Your task to perform on an android device: turn off wifi Image 0: 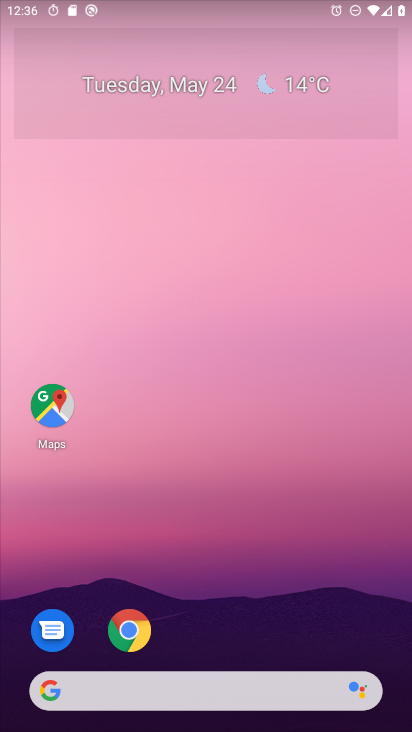
Step 0: drag from (252, 602) to (256, 111)
Your task to perform on an android device: turn off wifi Image 1: 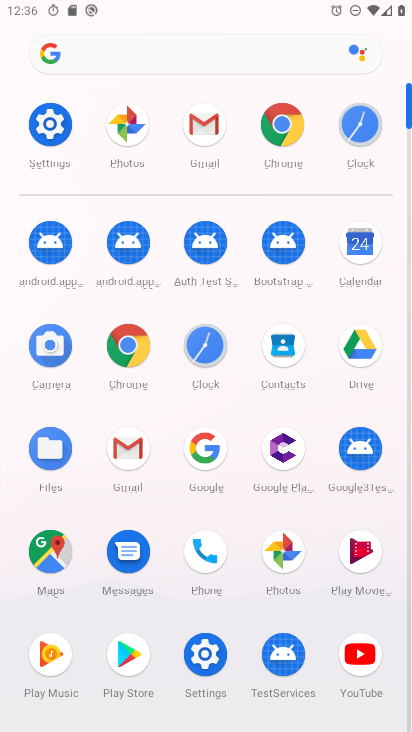
Step 1: click (57, 123)
Your task to perform on an android device: turn off wifi Image 2: 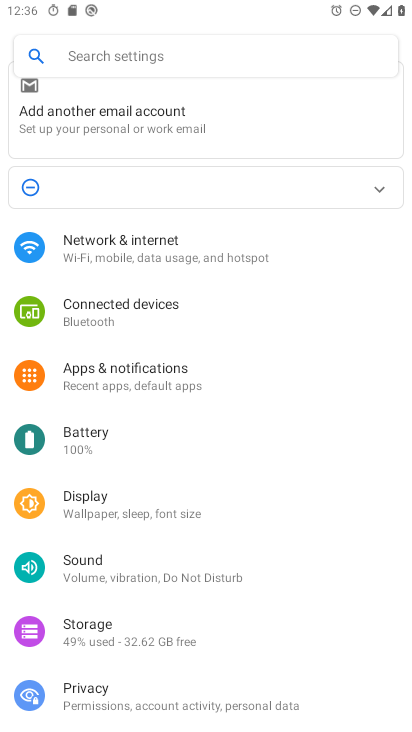
Step 2: click (119, 234)
Your task to perform on an android device: turn off wifi Image 3: 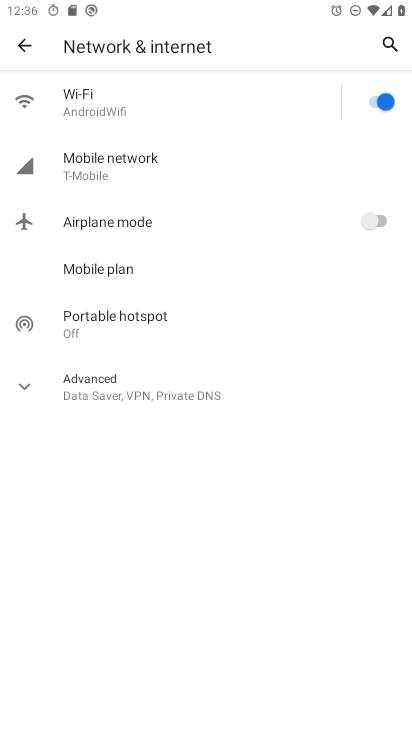
Step 3: click (378, 98)
Your task to perform on an android device: turn off wifi Image 4: 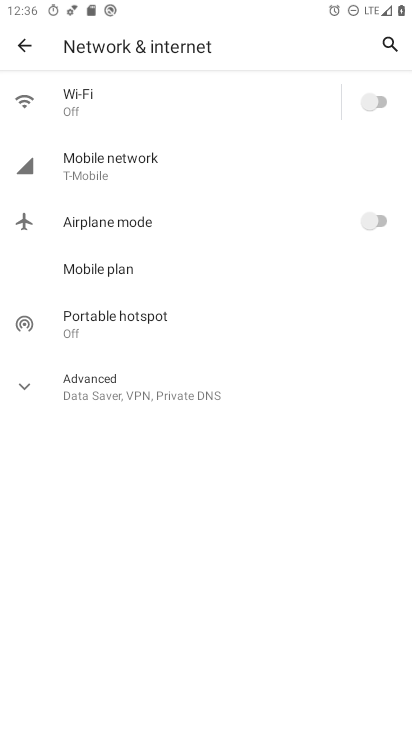
Step 4: task complete